Your task to perform on an android device: Search for flights from Seoul to Barcelona Image 0: 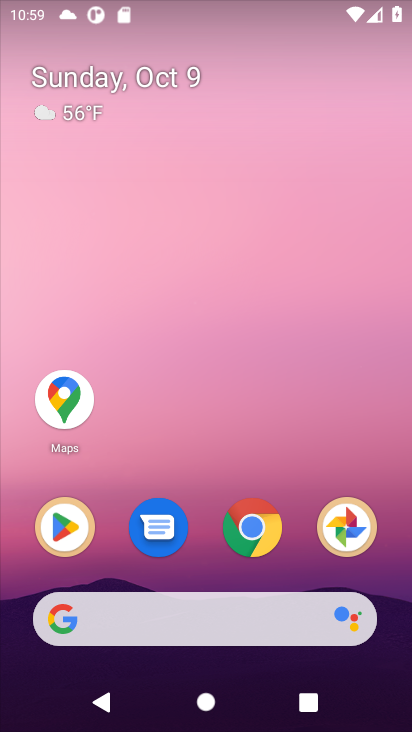
Step 0: click (259, 529)
Your task to perform on an android device: Search for flights from Seoul to Barcelona Image 1: 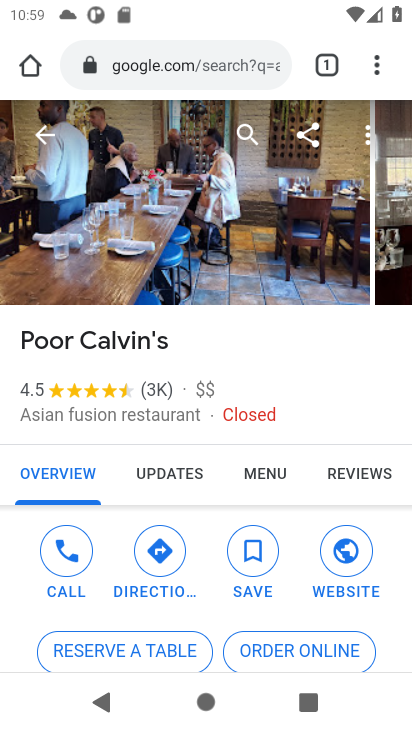
Step 1: click (201, 70)
Your task to perform on an android device: Search for flights from Seoul to Barcelona Image 2: 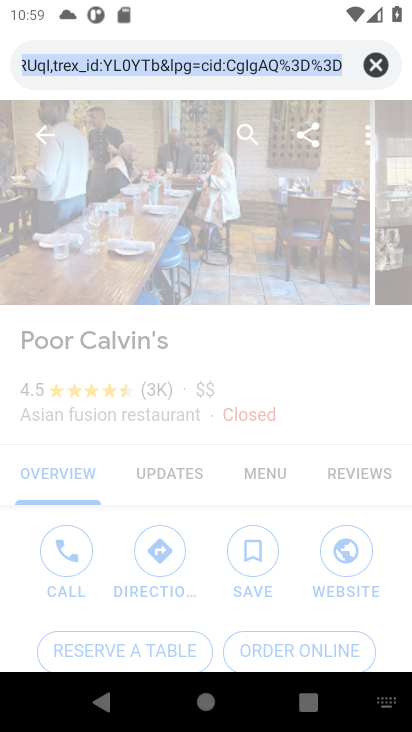
Step 2: click (372, 64)
Your task to perform on an android device: Search for flights from Seoul to Barcelona Image 3: 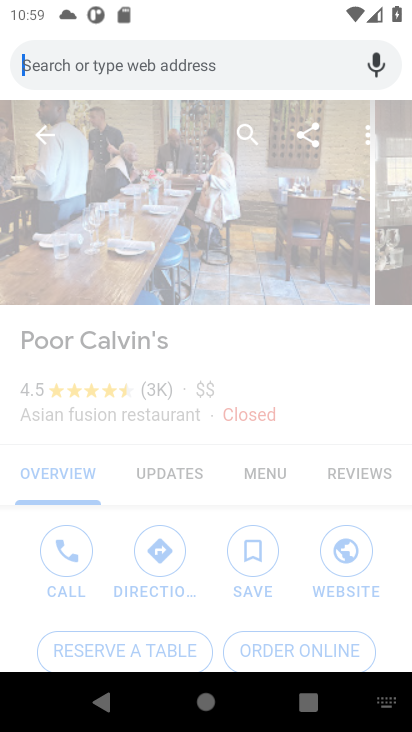
Step 3: type "flights from Seoul to Barcelona"
Your task to perform on an android device: Search for flights from Seoul to Barcelona Image 4: 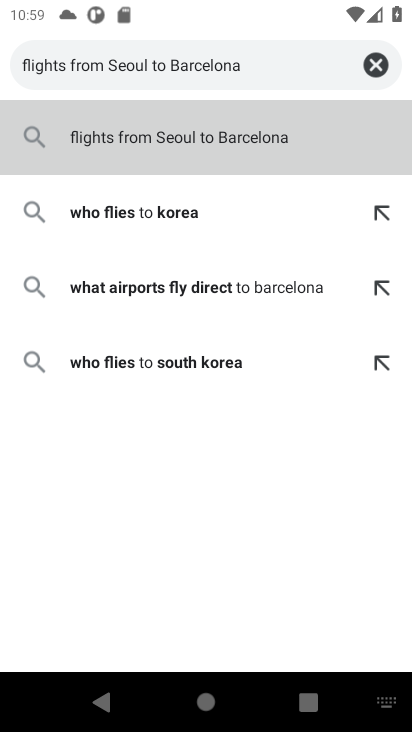
Step 4: click (141, 141)
Your task to perform on an android device: Search for flights from Seoul to Barcelona Image 5: 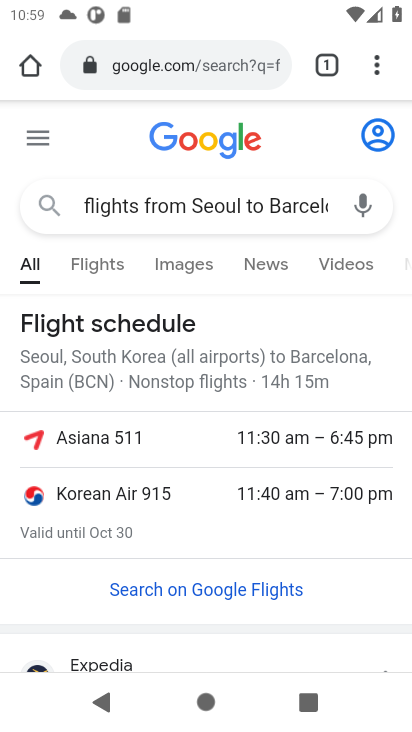
Step 5: click (120, 327)
Your task to perform on an android device: Search for flights from Seoul to Barcelona Image 6: 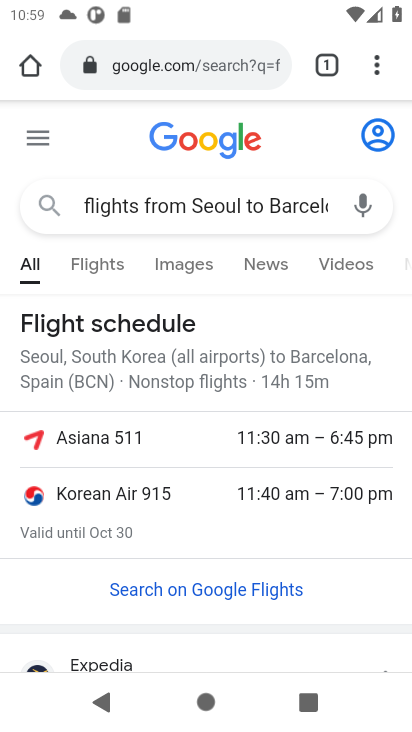
Step 6: click (192, 587)
Your task to perform on an android device: Search for flights from Seoul to Barcelona Image 7: 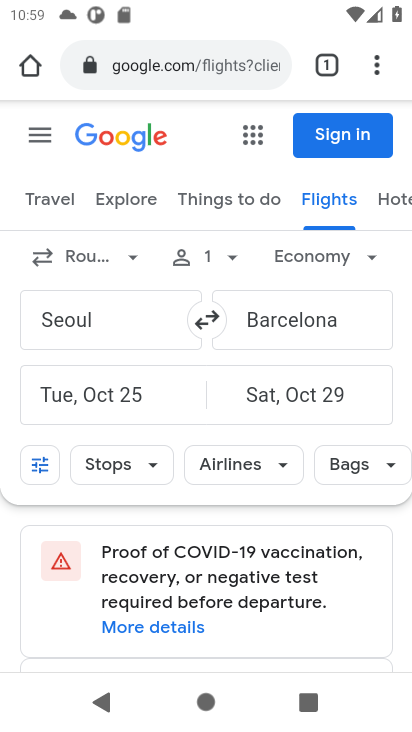
Step 7: task complete